Your task to perform on an android device: Play the last video I watched on Youtube Image 0: 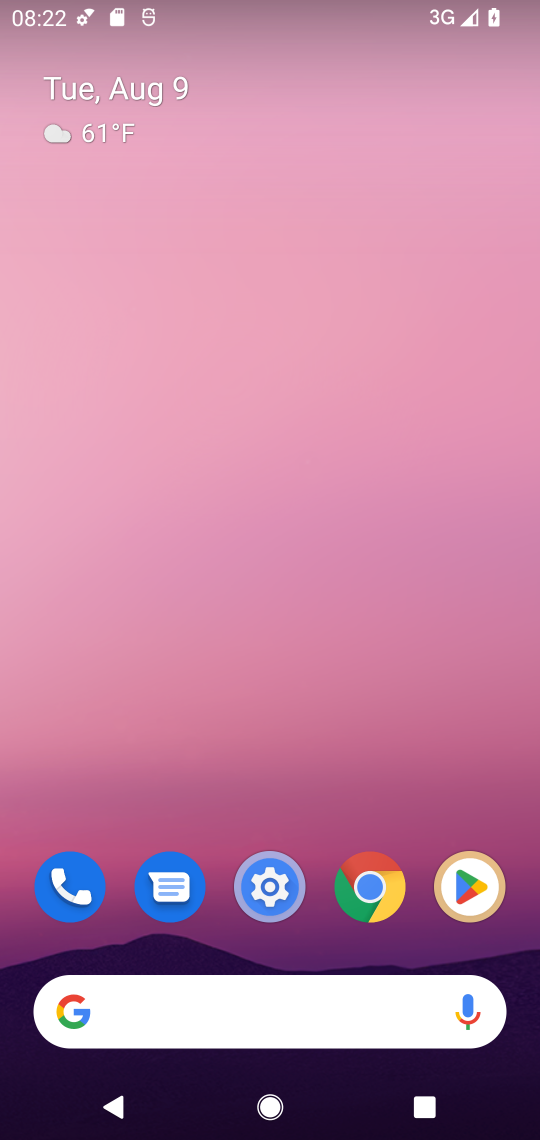
Step 0: drag from (330, 796) to (363, 0)
Your task to perform on an android device: Play the last video I watched on Youtube Image 1: 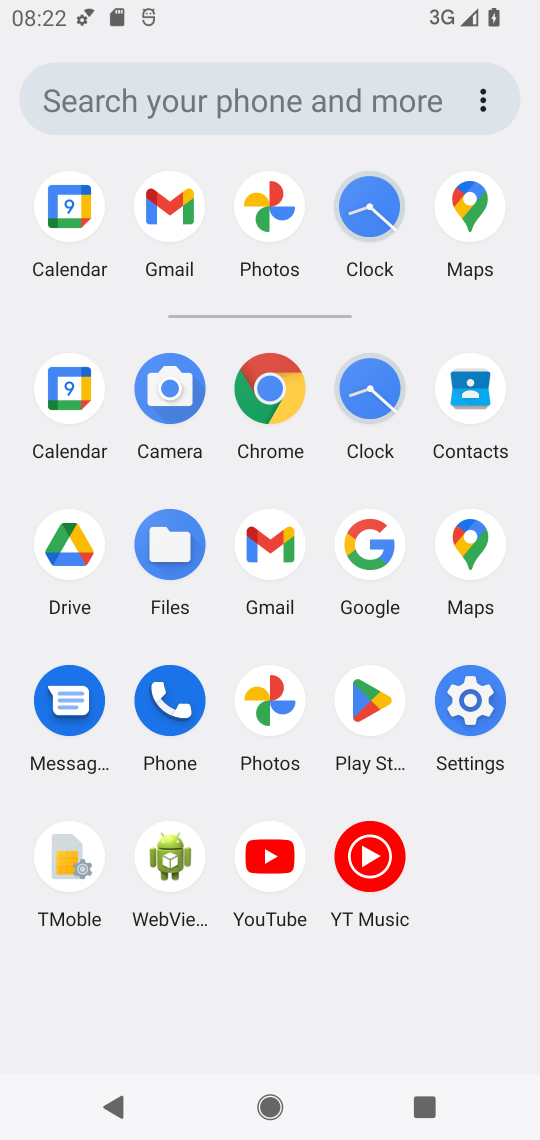
Step 1: click (279, 850)
Your task to perform on an android device: Play the last video I watched on Youtube Image 2: 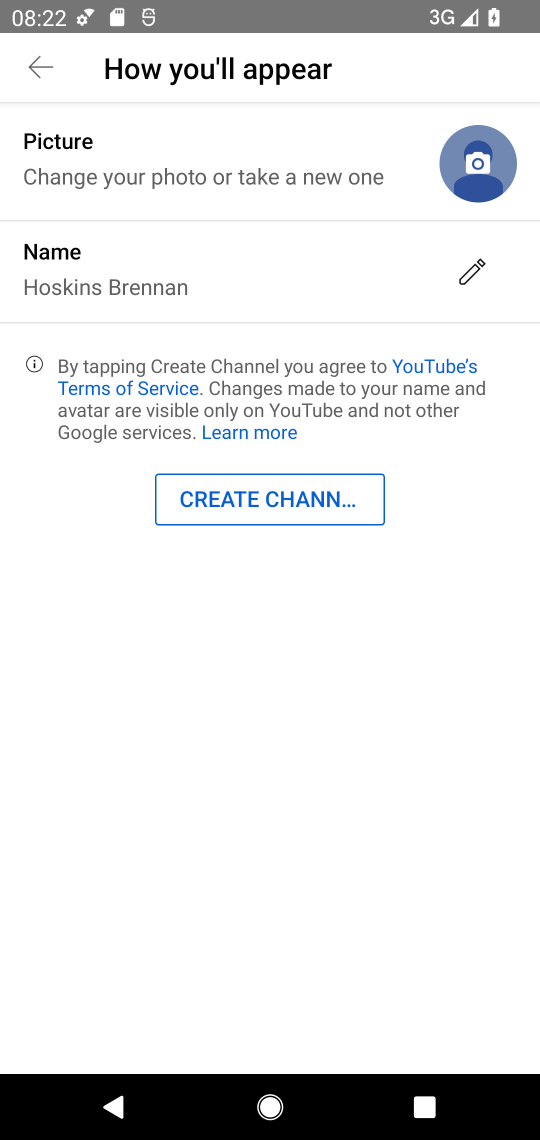
Step 2: click (46, 59)
Your task to perform on an android device: Play the last video I watched on Youtube Image 3: 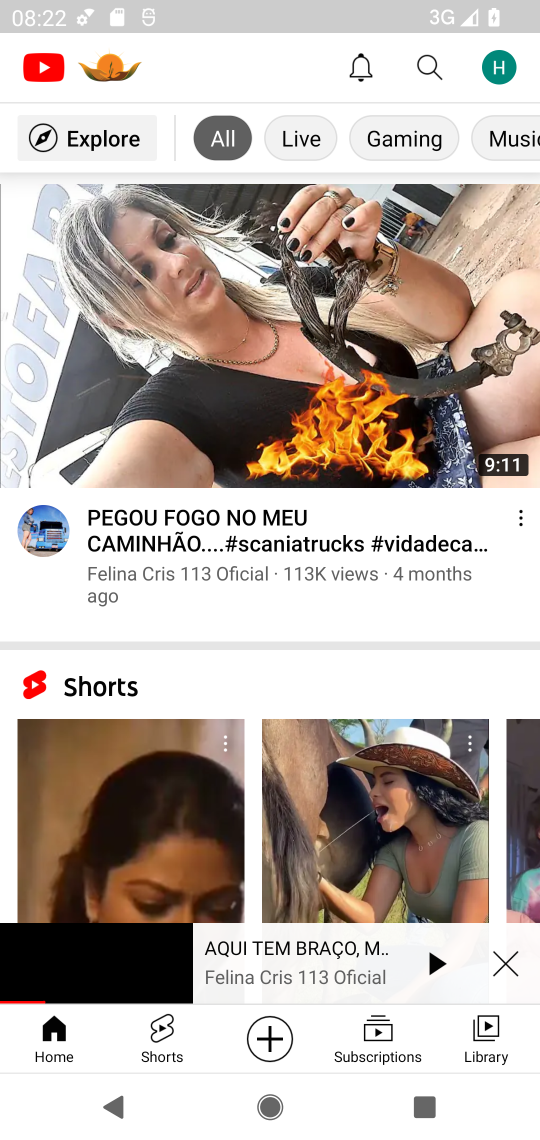
Step 3: click (492, 1042)
Your task to perform on an android device: Play the last video I watched on Youtube Image 4: 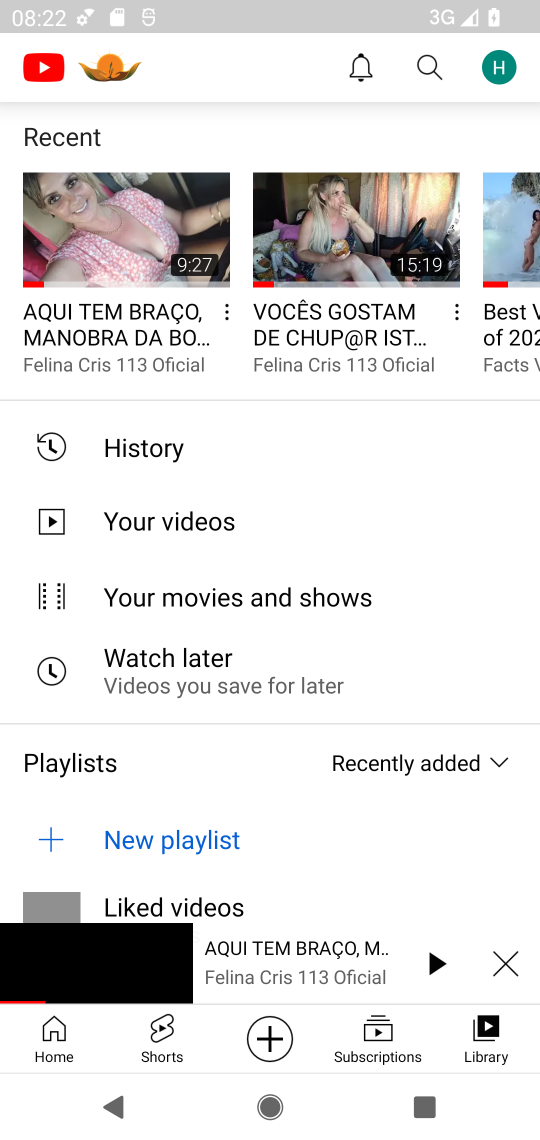
Step 4: click (146, 446)
Your task to perform on an android device: Play the last video I watched on Youtube Image 5: 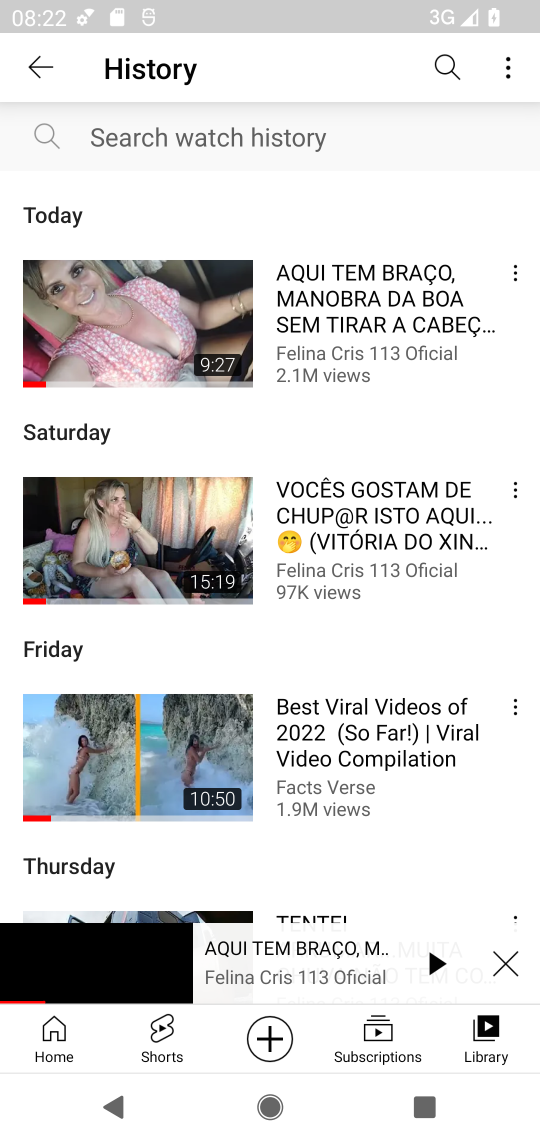
Step 5: click (171, 350)
Your task to perform on an android device: Play the last video I watched on Youtube Image 6: 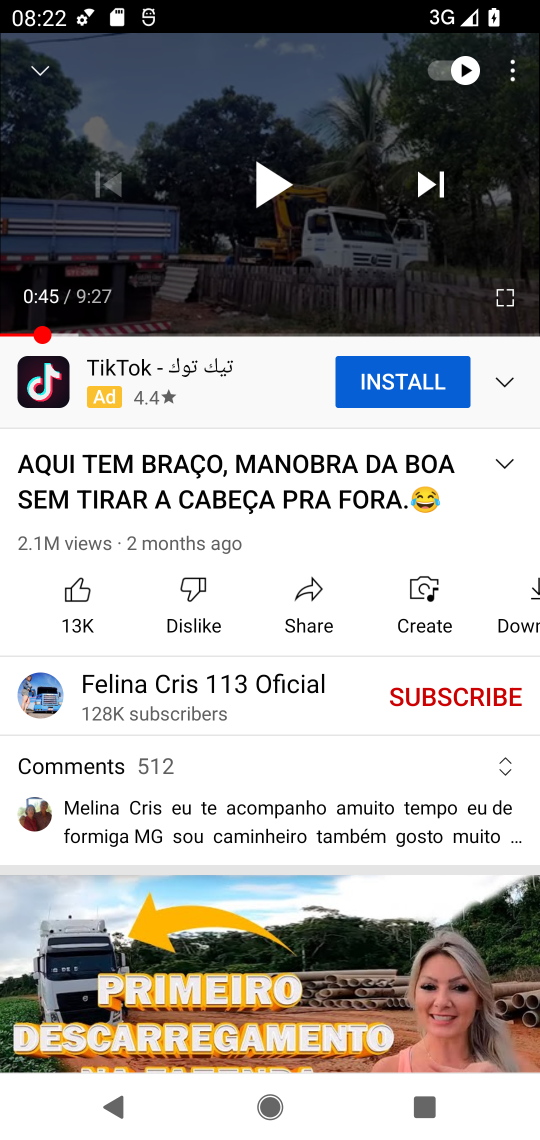
Step 6: click (288, 181)
Your task to perform on an android device: Play the last video I watched on Youtube Image 7: 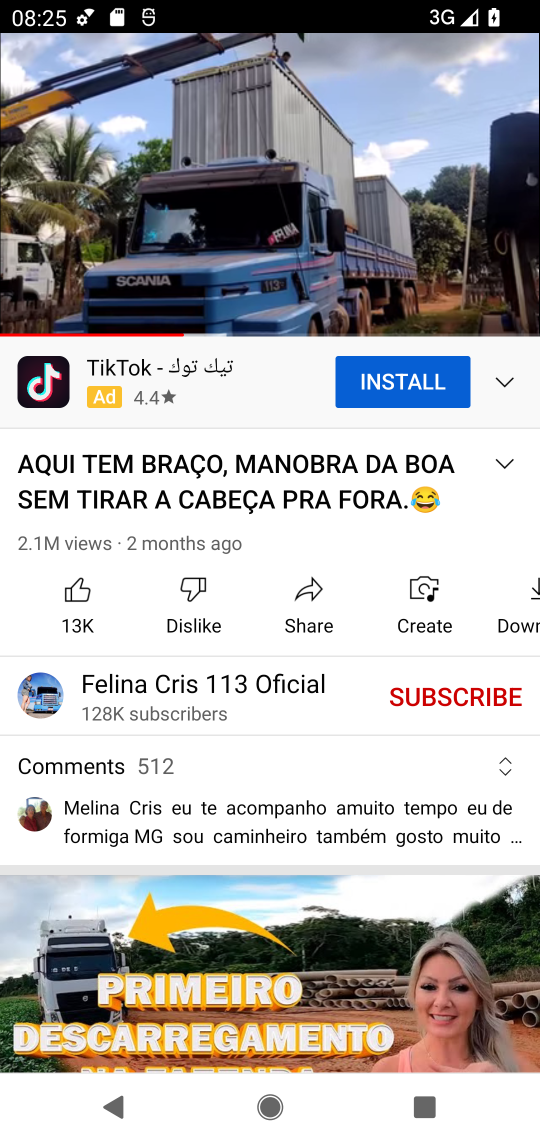
Step 7: task complete